Your task to perform on an android device: move an email to a new category in the gmail app Image 0: 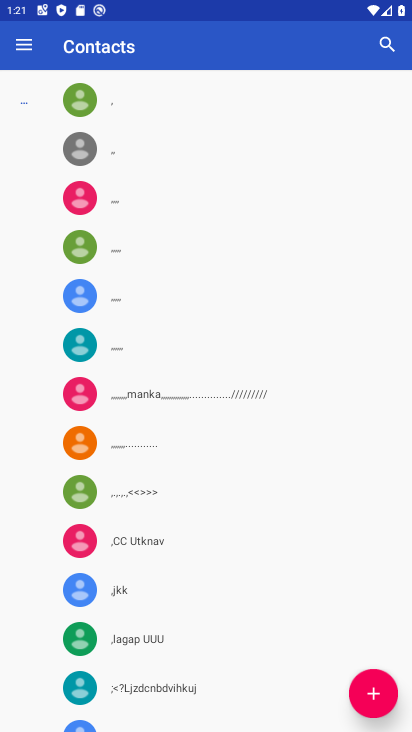
Step 0: press home button
Your task to perform on an android device: move an email to a new category in the gmail app Image 1: 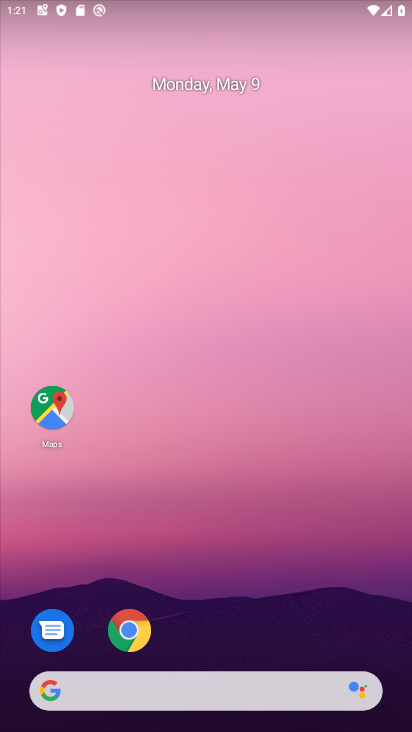
Step 1: drag from (259, 709) to (317, 327)
Your task to perform on an android device: move an email to a new category in the gmail app Image 2: 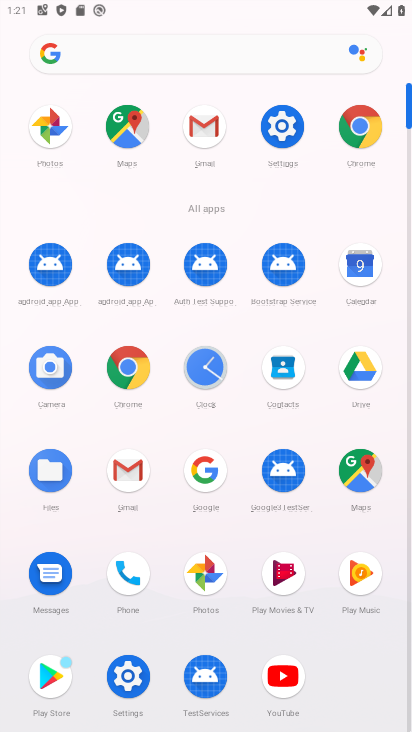
Step 2: click (139, 469)
Your task to perform on an android device: move an email to a new category in the gmail app Image 3: 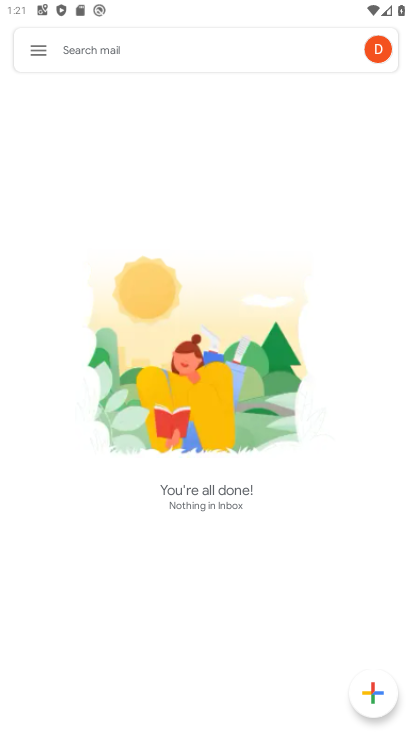
Step 3: click (36, 51)
Your task to perform on an android device: move an email to a new category in the gmail app Image 4: 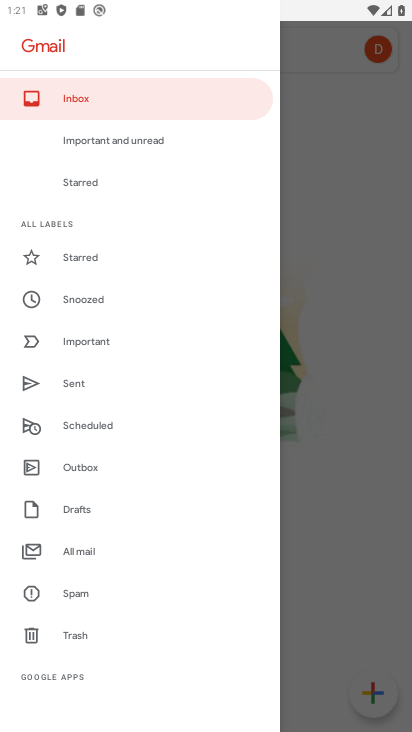
Step 4: drag from (96, 621) to (185, 479)
Your task to perform on an android device: move an email to a new category in the gmail app Image 5: 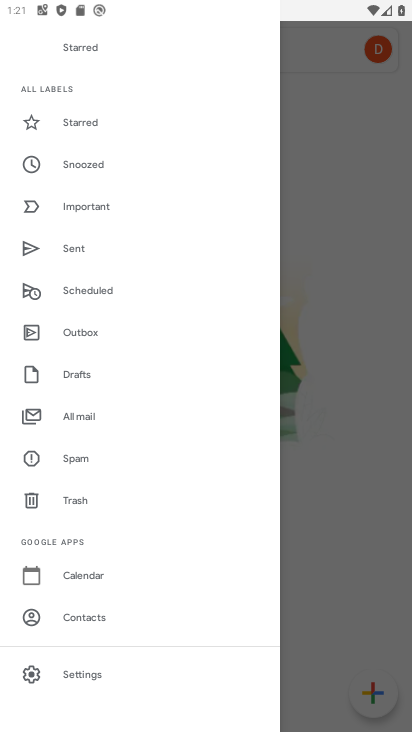
Step 5: click (88, 668)
Your task to perform on an android device: move an email to a new category in the gmail app Image 6: 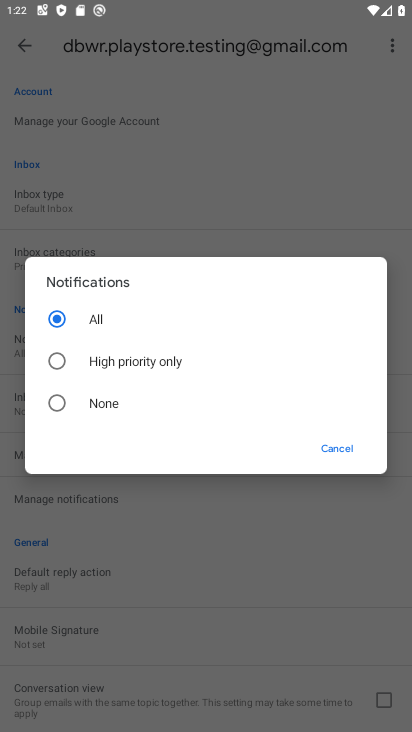
Step 6: click (338, 464)
Your task to perform on an android device: move an email to a new category in the gmail app Image 7: 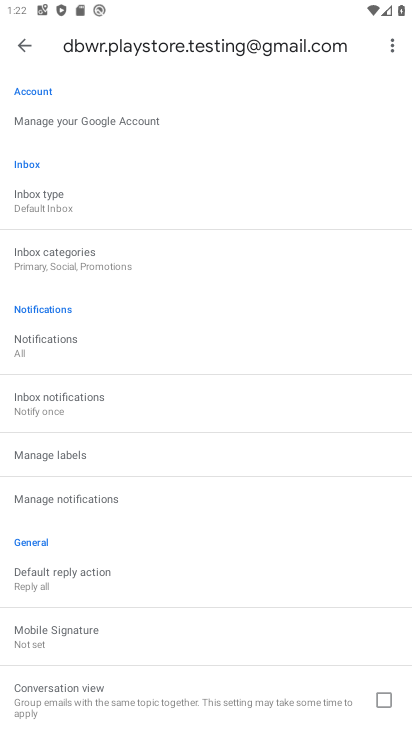
Step 7: click (68, 262)
Your task to perform on an android device: move an email to a new category in the gmail app Image 8: 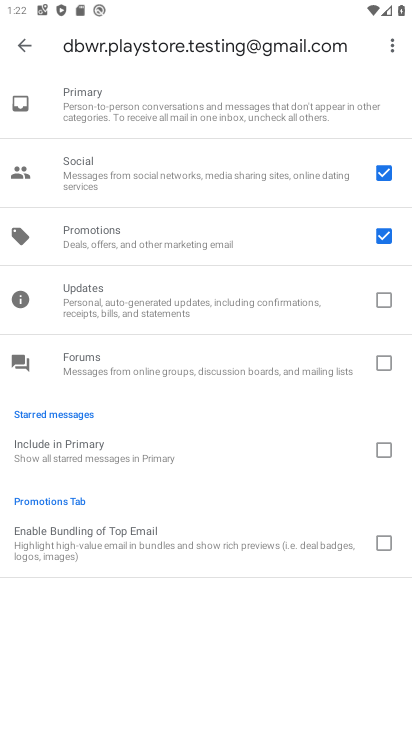
Step 8: click (383, 234)
Your task to perform on an android device: move an email to a new category in the gmail app Image 9: 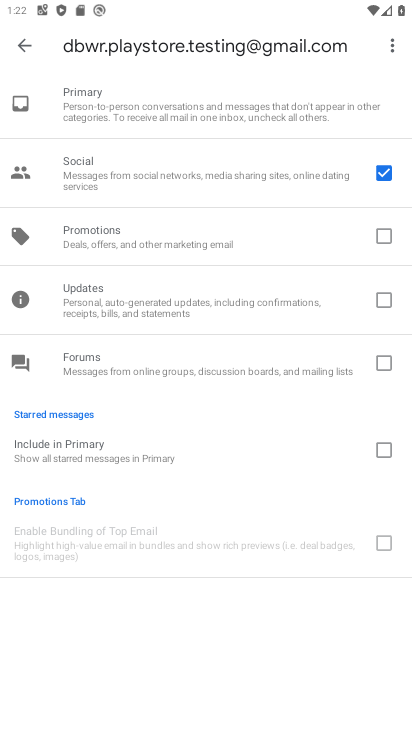
Step 9: task complete